Your task to perform on an android device: allow cookies in the chrome app Image 0: 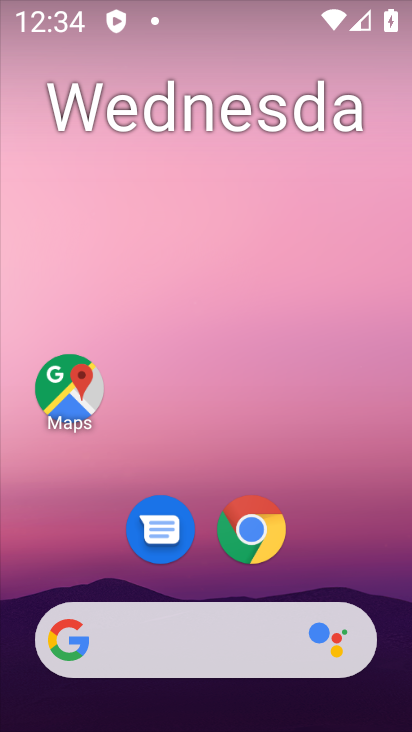
Step 0: click (256, 526)
Your task to perform on an android device: allow cookies in the chrome app Image 1: 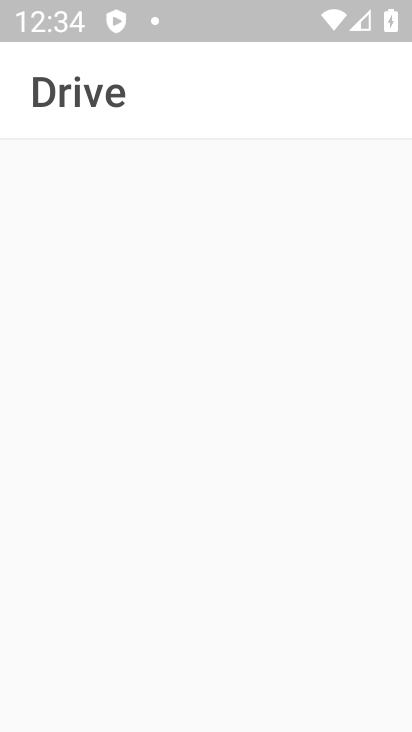
Step 1: press home button
Your task to perform on an android device: allow cookies in the chrome app Image 2: 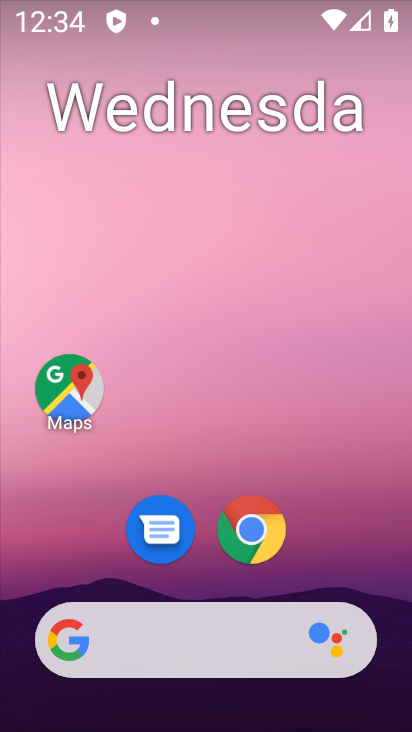
Step 2: click (255, 529)
Your task to perform on an android device: allow cookies in the chrome app Image 3: 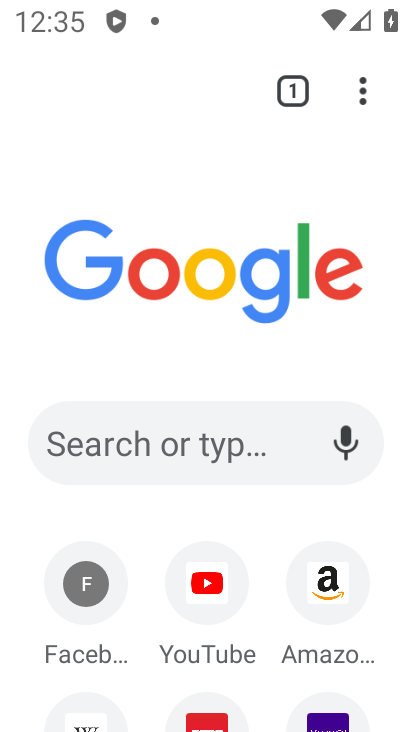
Step 3: click (365, 100)
Your task to perform on an android device: allow cookies in the chrome app Image 4: 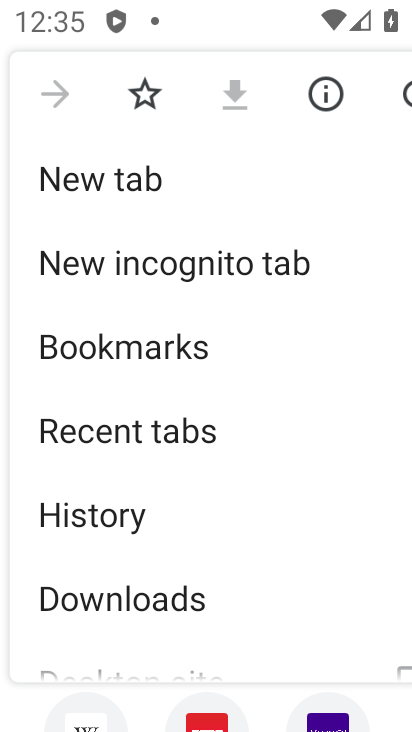
Step 4: drag from (116, 618) to (116, 239)
Your task to perform on an android device: allow cookies in the chrome app Image 5: 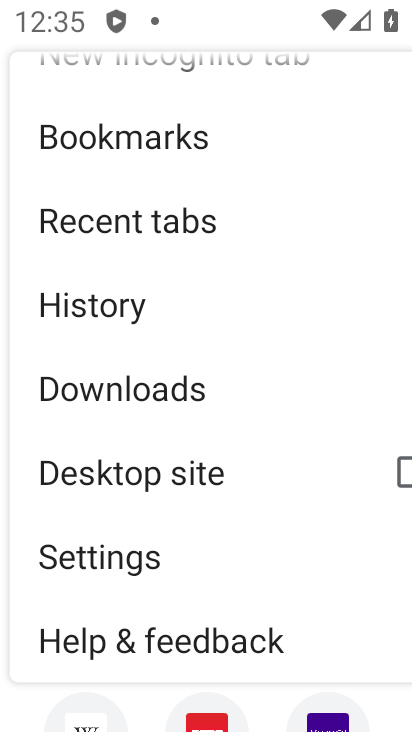
Step 5: click (123, 550)
Your task to perform on an android device: allow cookies in the chrome app Image 6: 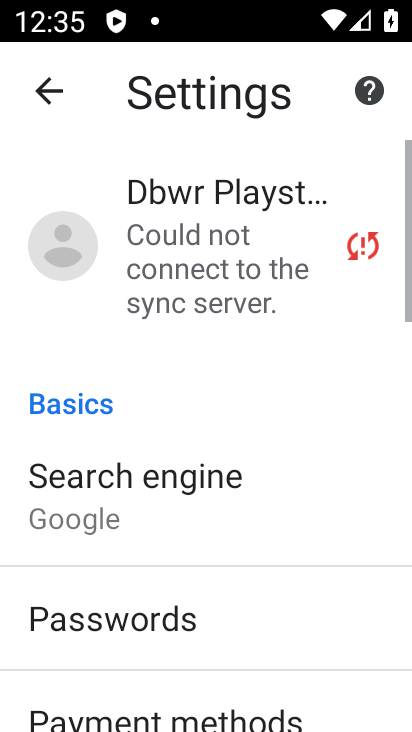
Step 6: drag from (152, 684) to (151, 381)
Your task to perform on an android device: allow cookies in the chrome app Image 7: 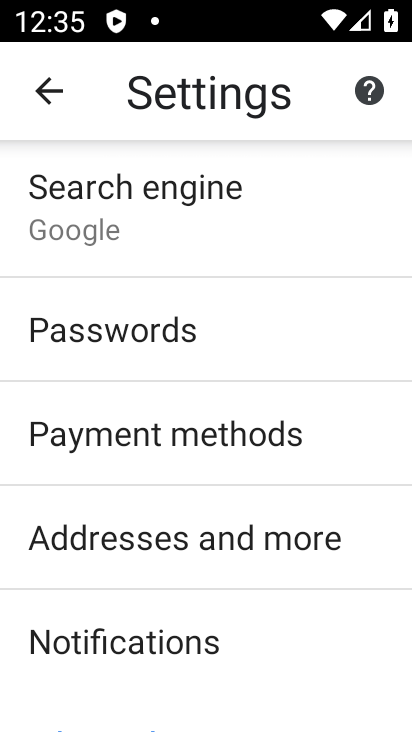
Step 7: drag from (164, 640) to (163, 250)
Your task to perform on an android device: allow cookies in the chrome app Image 8: 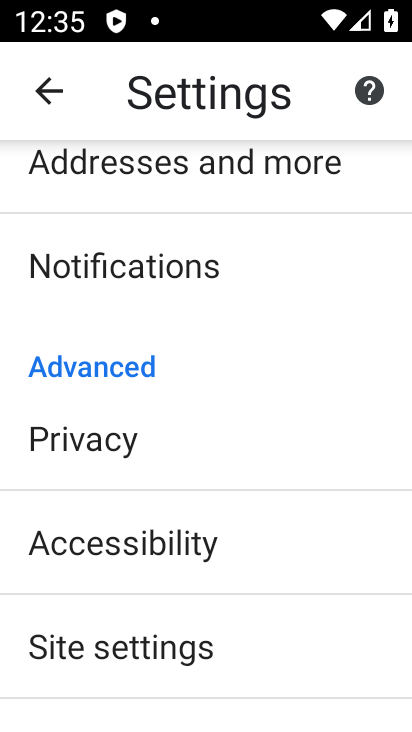
Step 8: drag from (163, 618) to (164, 250)
Your task to perform on an android device: allow cookies in the chrome app Image 9: 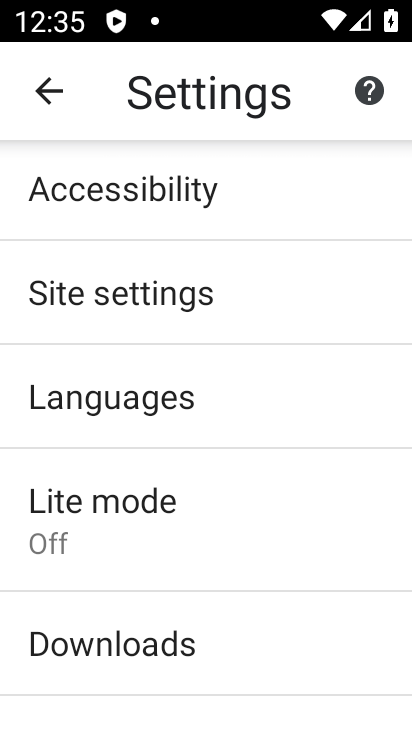
Step 9: click (133, 290)
Your task to perform on an android device: allow cookies in the chrome app Image 10: 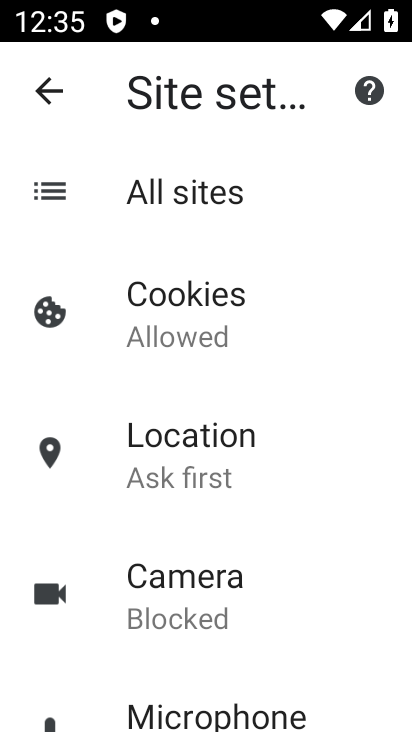
Step 10: click (174, 310)
Your task to perform on an android device: allow cookies in the chrome app Image 11: 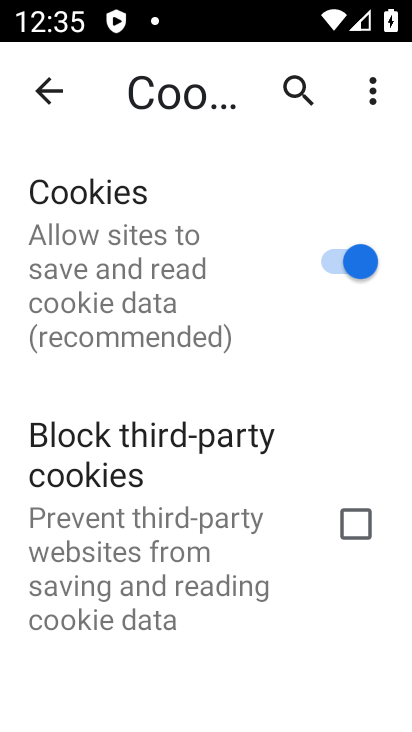
Step 11: task complete